Your task to perform on an android device: find photos in the google photos app Image 0: 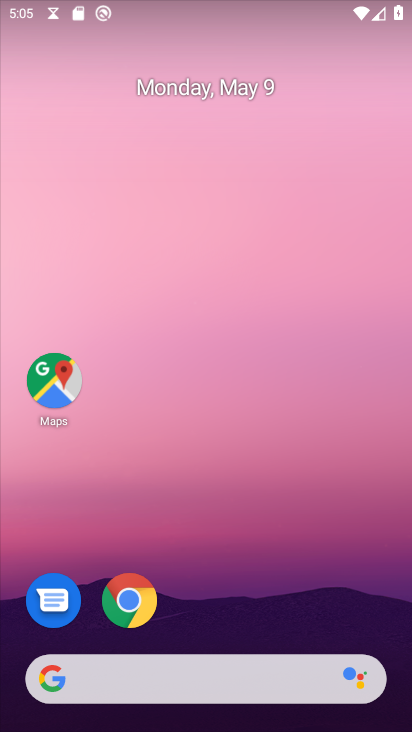
Step 0: drag from (308, 655) to (357, 0)
Your task to perform on an android device: find photos in the google photos app Image 1: 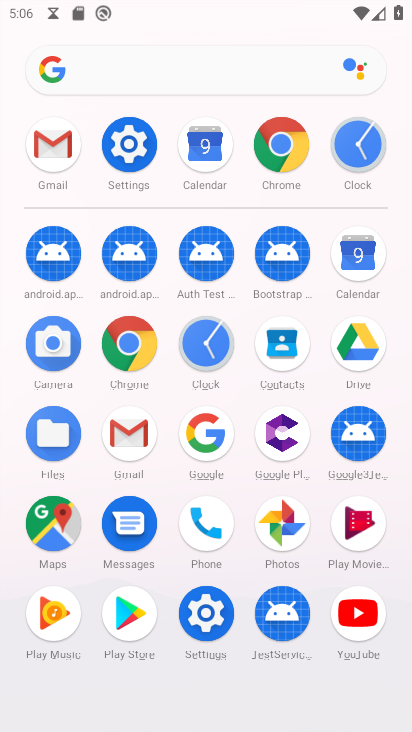
Step 1: click (287, 535)
Your task to perform on an android device: find photos in the google photos app Image 2: 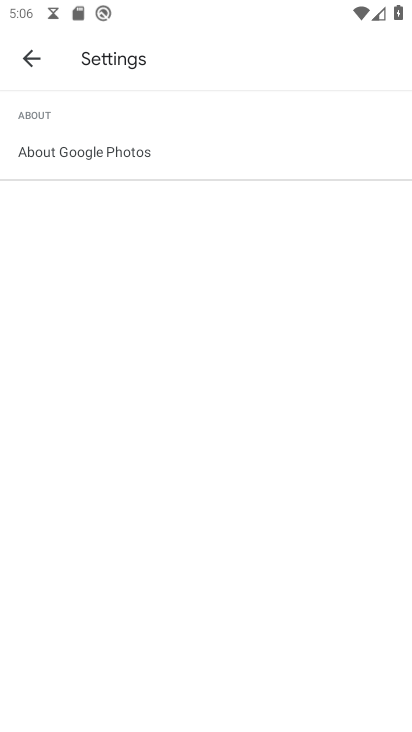
Step 2: press back button
Your task to perform on an android device: find photos in the google photos app Image 3: 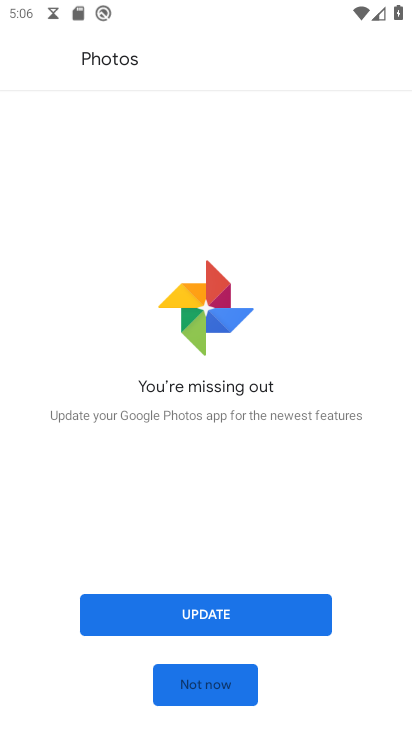
Step 3: click (307, 620)
Your task to perform on an android device: find photos in the google photos app Image 4: 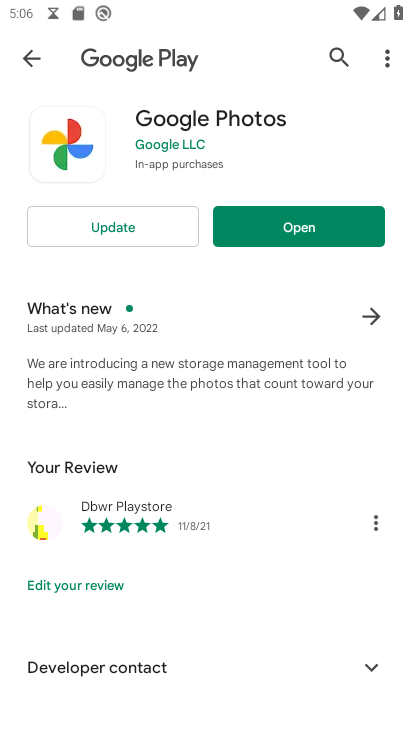
Step 4: click (164, 228)
Your task to perform on an android device: find photos in the google photos app Image 5: 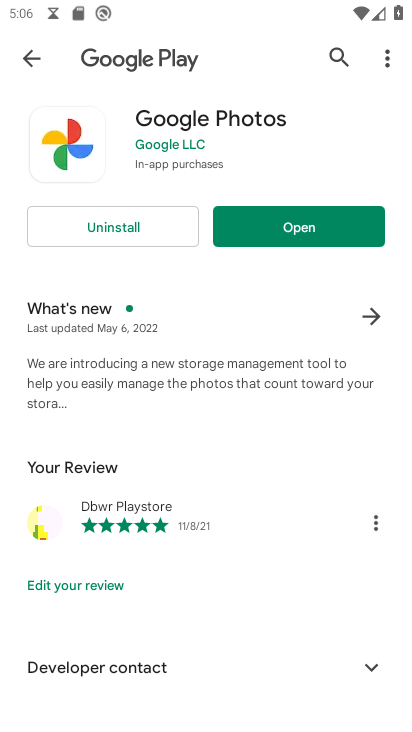
Step 5: click (355, 220)
Your task to perform on an android device: find photos in the google photos app Image 6: 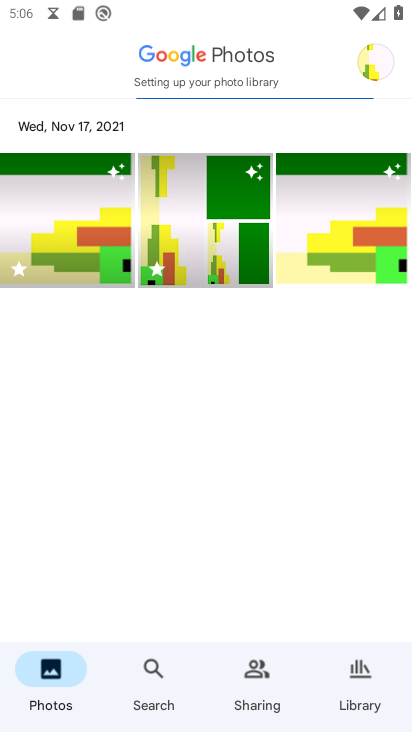
Step 6: task complete